Your task to perform on an android device: Open the phone app and click the voicemail tab. Image 0: 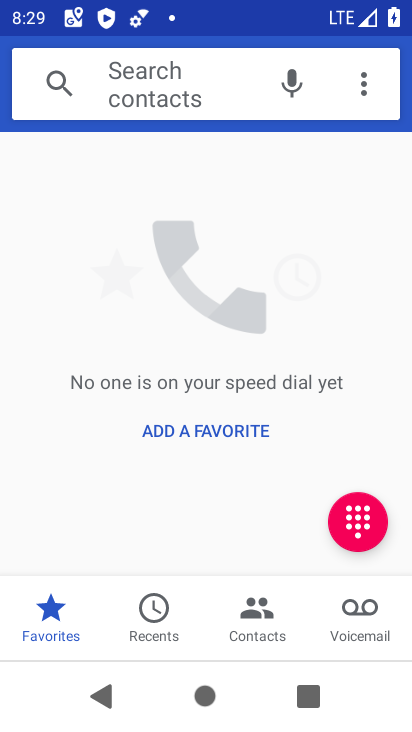
Step 0: click (363, 615)
Your task to perform on an android device: Open the phone app and click the voicemail tab. Image 1: 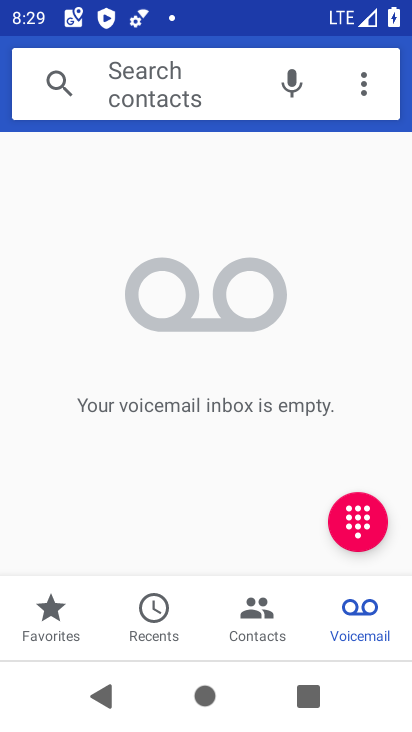
Step 1: task complete